Your task to perform on an android device: see creations saved in the google photos Image 0: 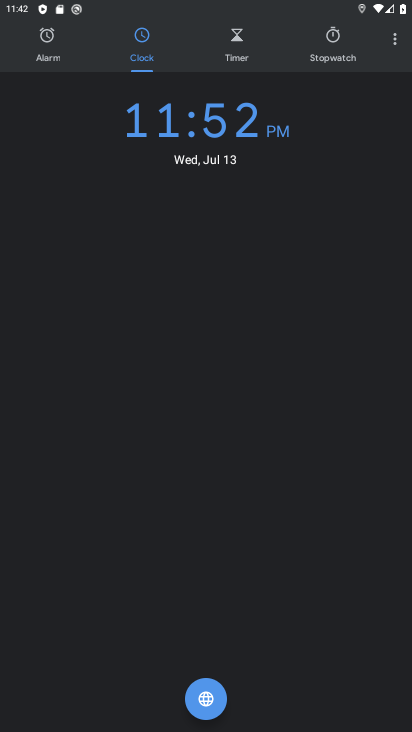
Step 0: press home button
Your task to perform on an android device: see creations saved in the google photos Image 1: 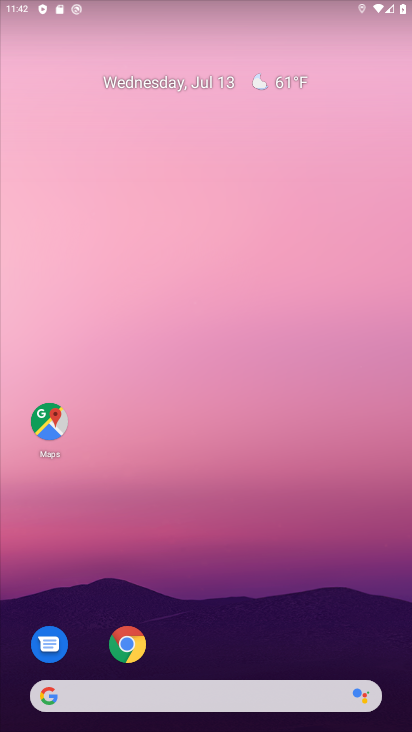
Step 1: drag from (251, 608) to (269, 89)
Your task to perform on an android device: see creations saved in the google photos Image 2: 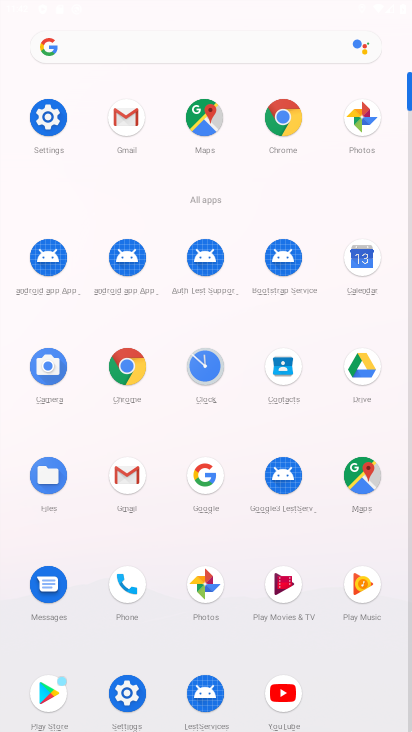
Step 2: click (205, 587)
Your task to perform on an android device: see creations saved in the google photos Image 3: 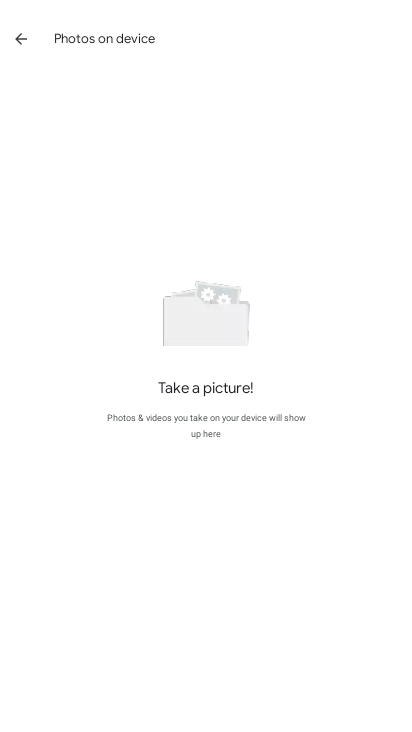
Step 3: press back button
Your task to perform on an android device: see creations saved in the google photos Image 4: 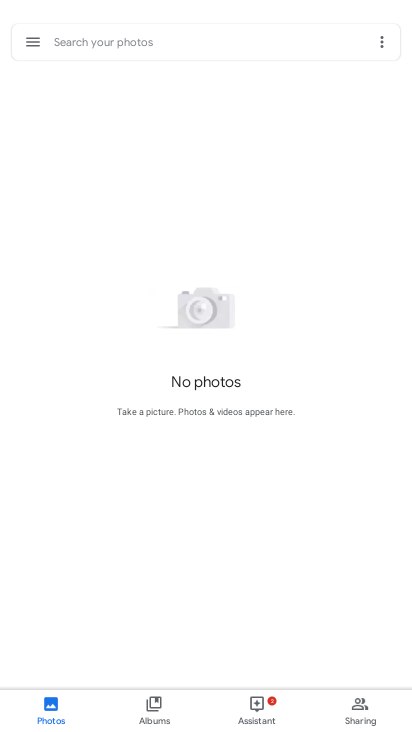
Step 4: click (256, 43)
Your task to perform on an android device: see creations saved in the google photos Image 5: 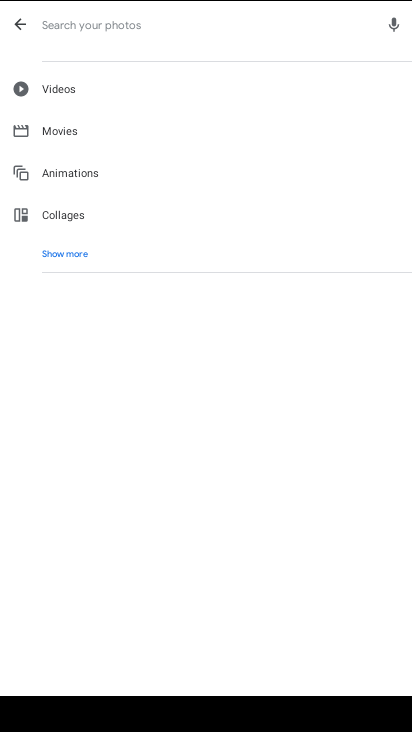
Step 5: click (64, 252)
Your task to perform on an android device: see creations saved in the google photos Image 6: 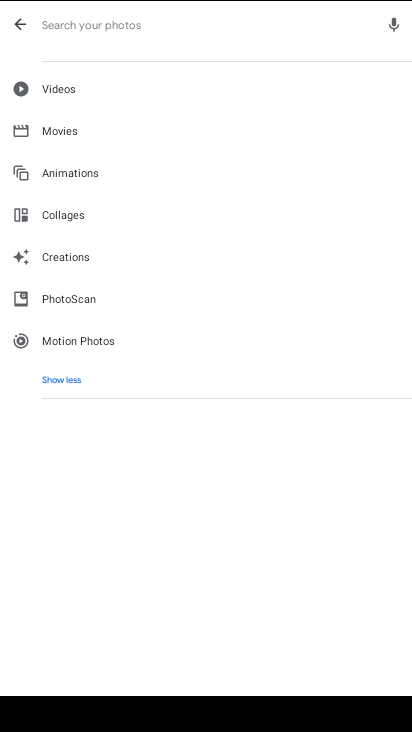
Step 6: click (57, 255)
Your task to perform on an android device: see creations saved in the google photos Image 7: 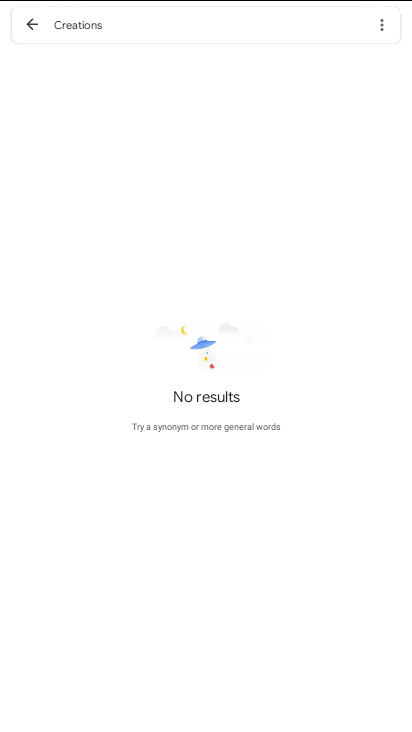
Step 7: task complete